Your task to perform on an android device: Play the last video I watched on Youtube Image 0: 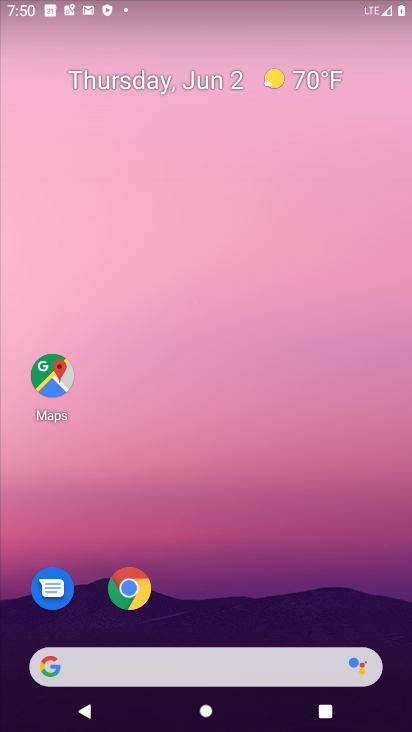
Step 0: drag from (185, 621) to (326, 1)
Your task to perform on an android device: Play the last video I watched on Youtube Image 1: 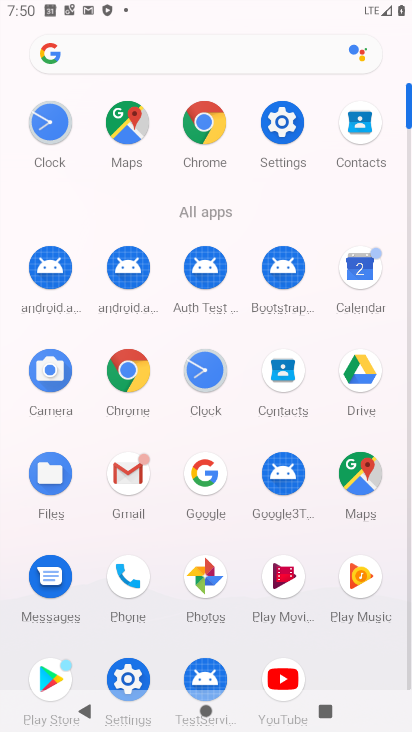
Step 1: click (287, 679)
Your task to perform on an android device: Play the last video I watched on Youtube Image 2: 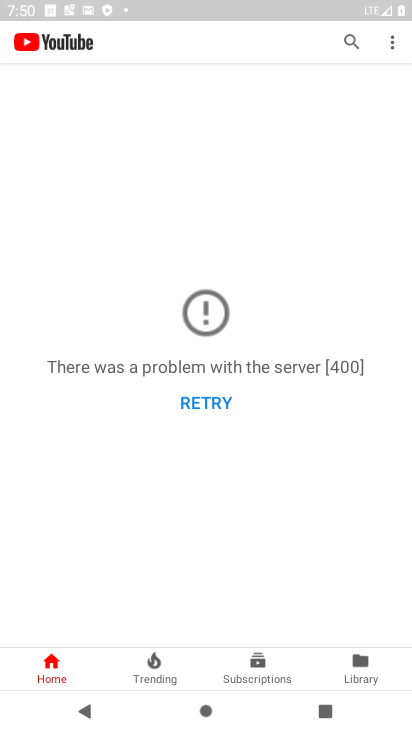
Step 2: click (186, 397)
Your task to perform on an android device: Play the last video I watched on Youtube Image 3: 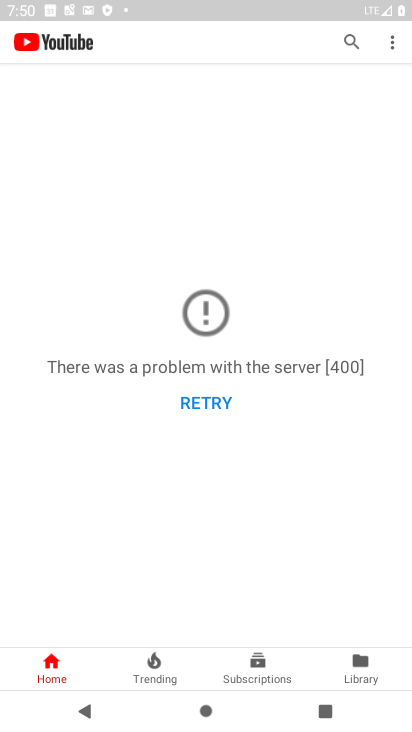
Step 3: click (213, 402)
Your task to perform on an android device: Play the last video I watched on Youtube Image 4: 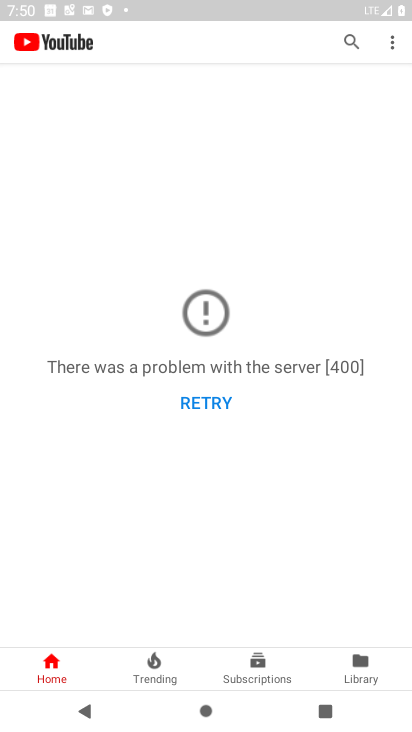
Step 4: click (213, 402)
Your task to perform on an android device: Play the last video I watched on Youtube Image 5: 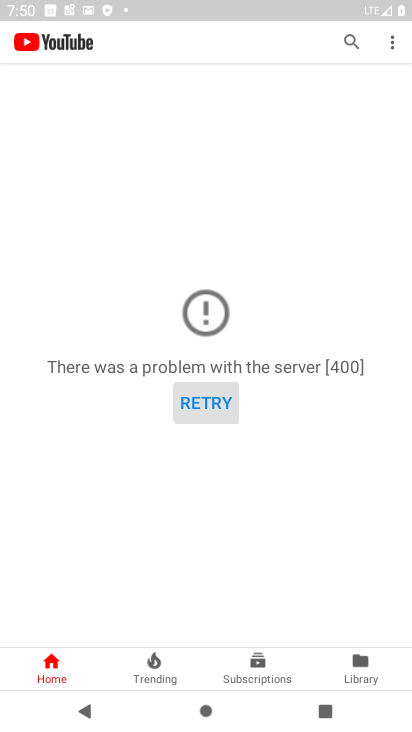
Step 5: click (214, 401)
Your task to perform on an android device: Play the last video I watched on Youtube Image 6: 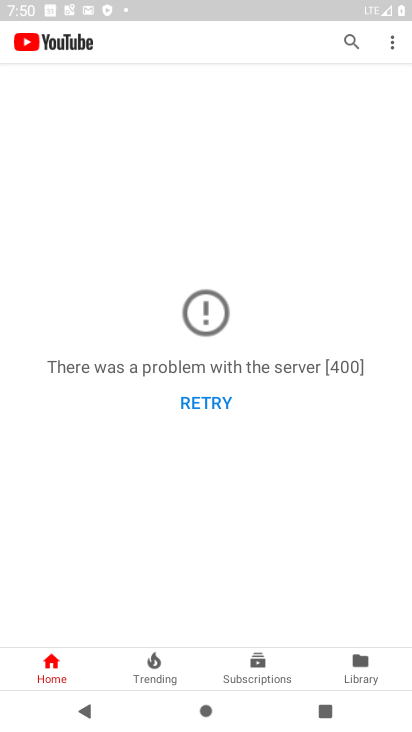
Step 6: click (214, 401)
Your task to perform on an android device: Play the last video I watched on Youtube Image 7: 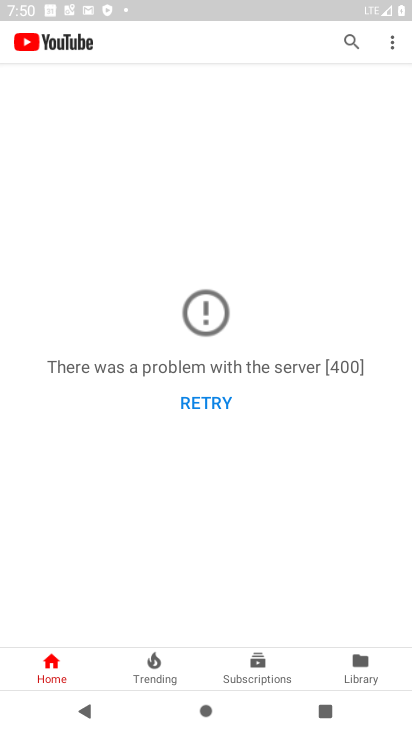
Step 7: click (215, 401)
Your task to perform on an android device: Play the last video I watched on Youtube Image 8: 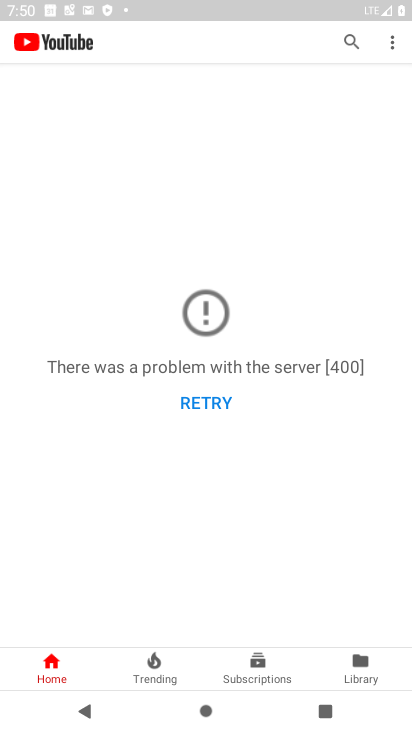
Step 8: click (218, 400)
Your task to perform on an android device: Play the last video I watched on Youtube Image 9: 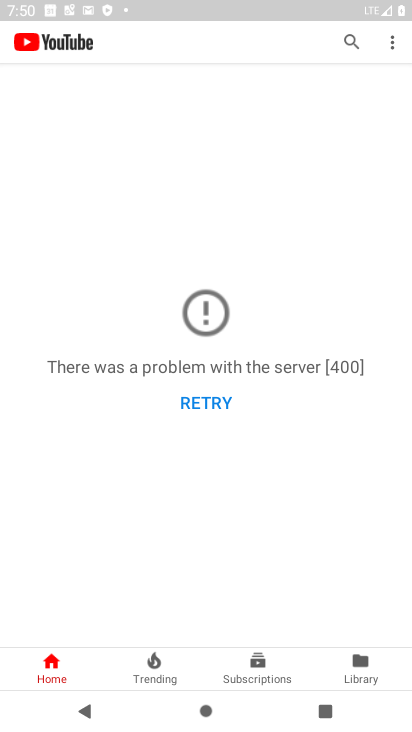
Step 9: click (218, 400)
Your task to perform on an android device: Play the last video I watched on Youtube Image 10: 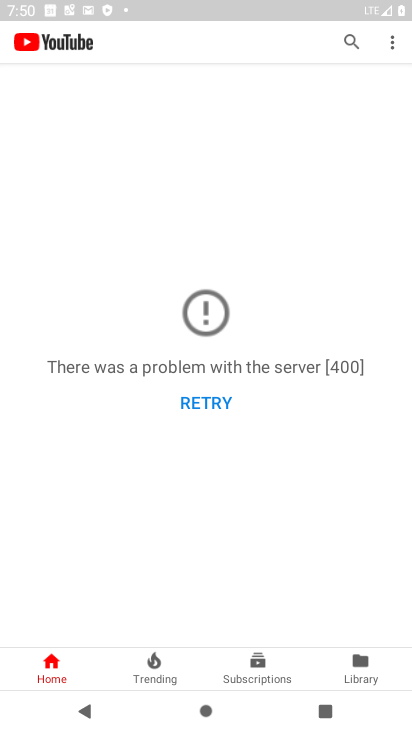
Step 10: click (195, 408)
Your task to perform on an android device: Play the last video I watched on Youtube Image 11: 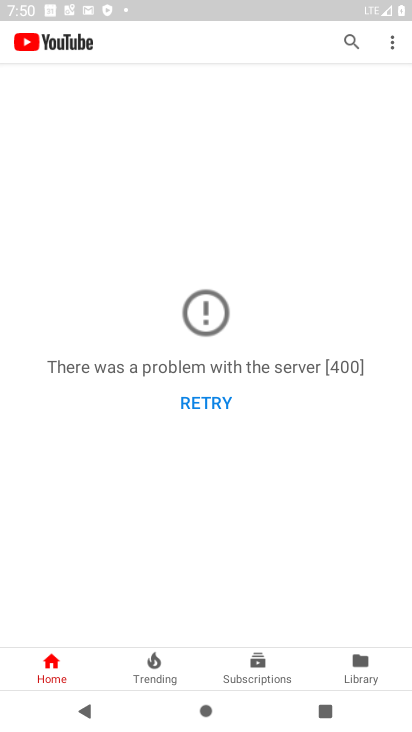
Step 11: task complete